Your task to perform on an android device: open app "Upside-Cash back on gas & food" (install if not already installed), go to login, and select forgot password Image 0: 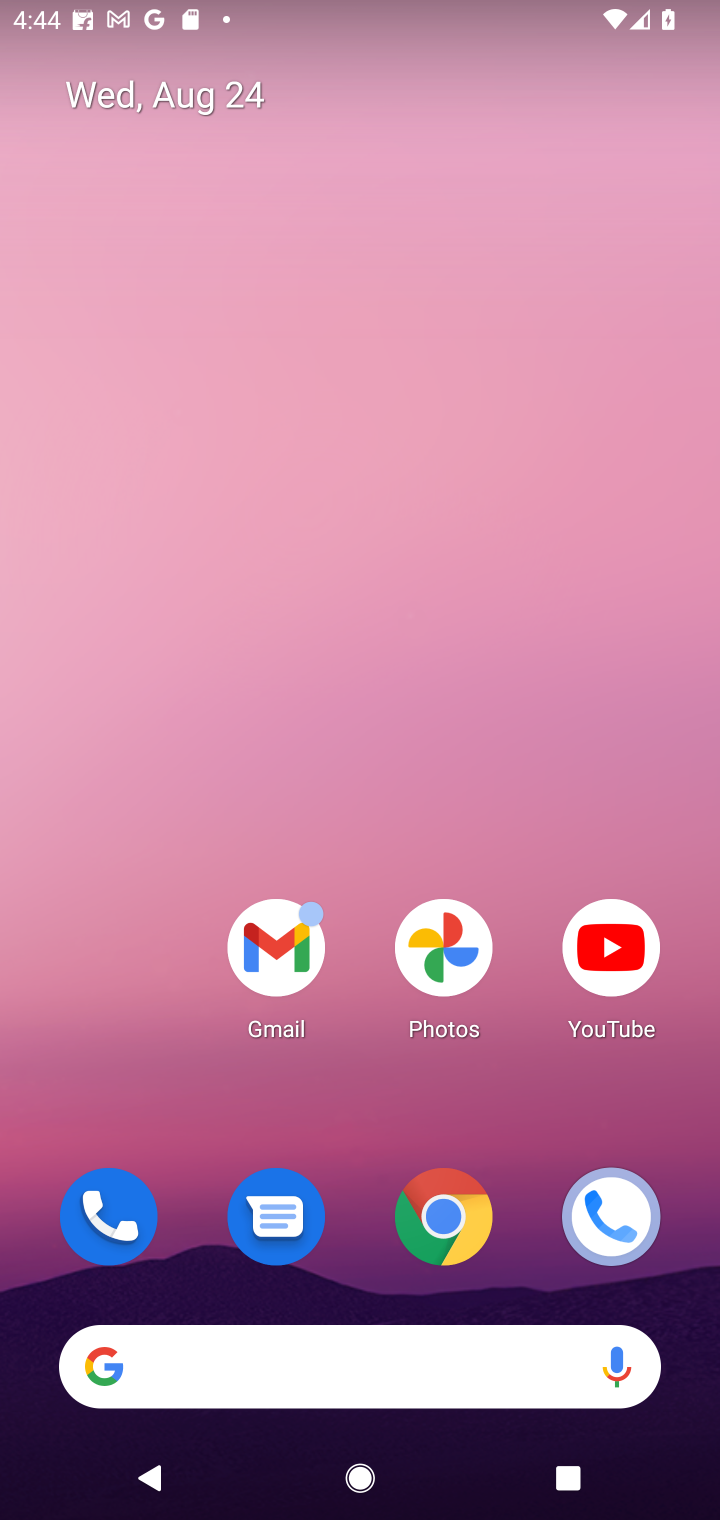
Step 0: drag from (352, 978) to (381, 241)
Your task to perform on an android device: open app "Upside-Cash back on gas & food" (install if not already installed), go to login, and select forgot password Image 1: 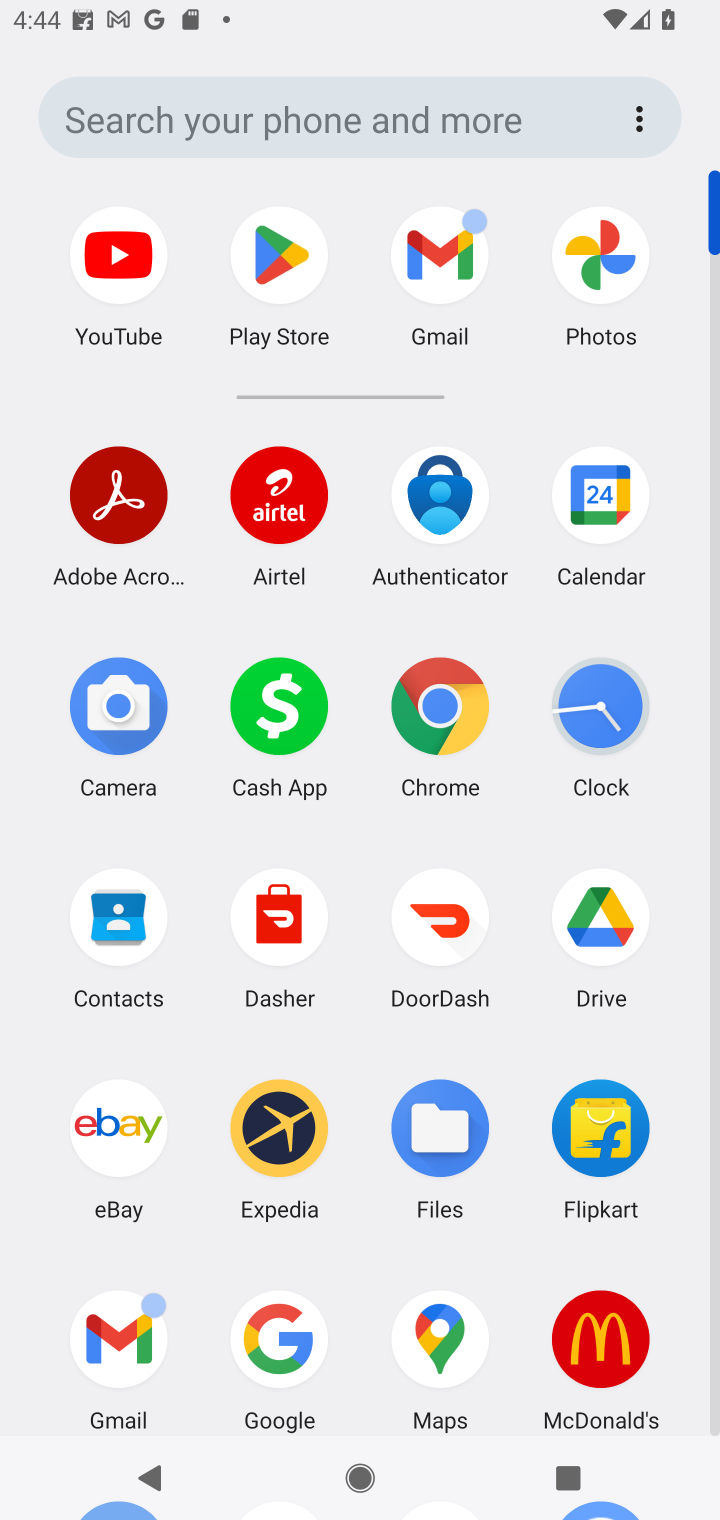
Step 1: click (253, 268)
Your task to perform on an android device: open app "Upside-Cash back on gas & food" (install if not already installed), go to login, and select forgot password Image 2: 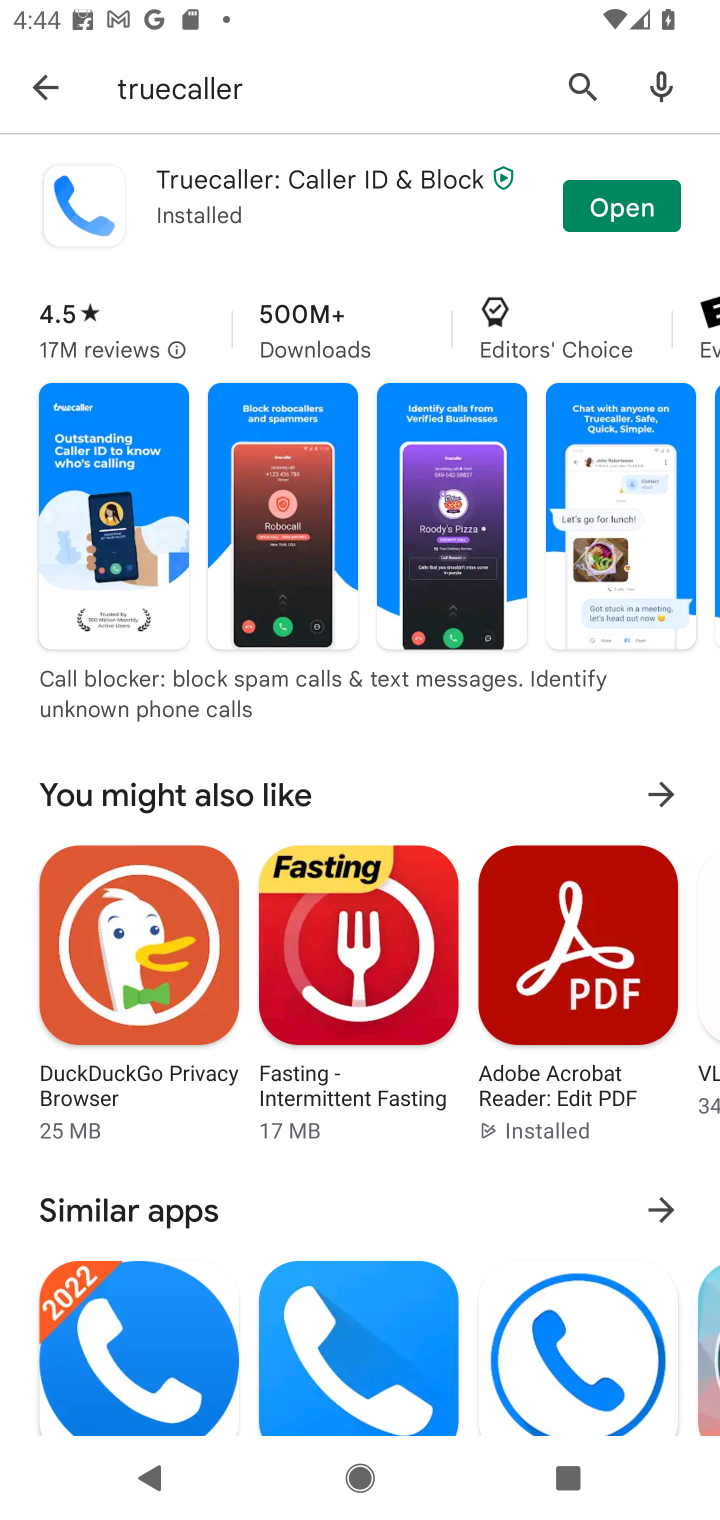
Step 2: click (586, 90)
Your task to perform on an android device: open app "Upside-Cash back on gas & food" (install if not already installed), go to login, and select forgot password Image 3: 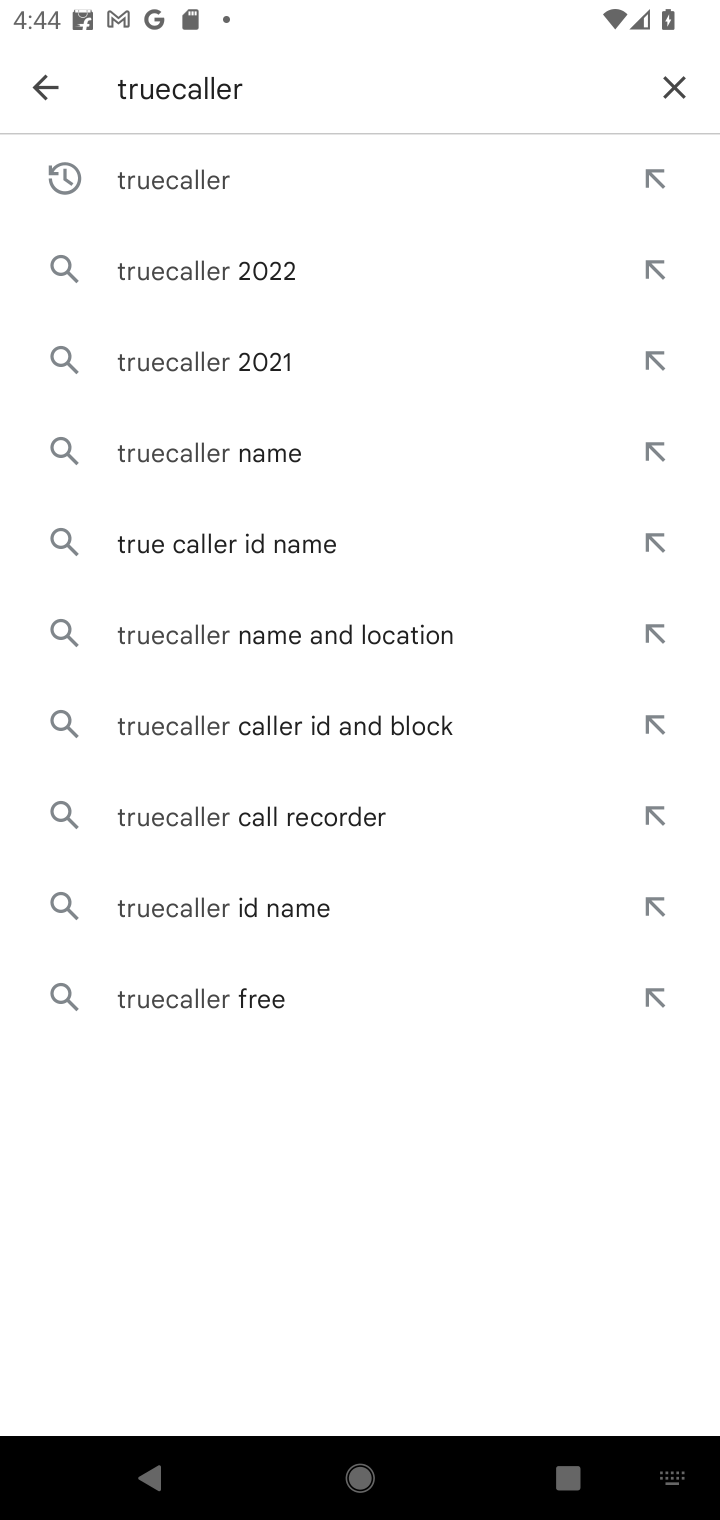
Step 3: click (669, 100)
Your task to perform on an android device: open app "Upside-Cash back on gas & food" (install if not already installed), go to login, and select forgot password Image 4: 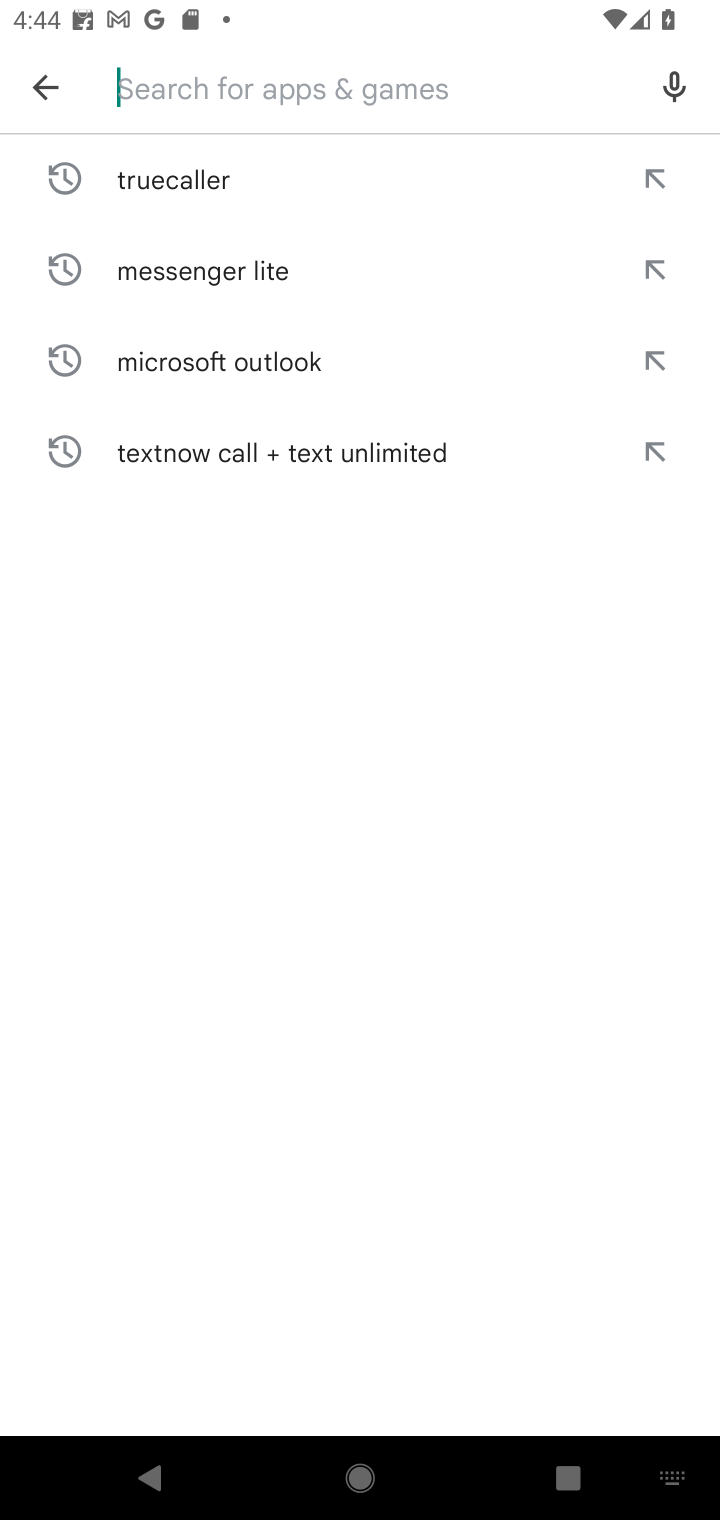
Step 4: type "Upside-Cash back on gas & food"
Your task to perform on an android device: open app "Upside-Cash back on gas & food" (install if not already installed), go to login, and select forgot password Image 5: 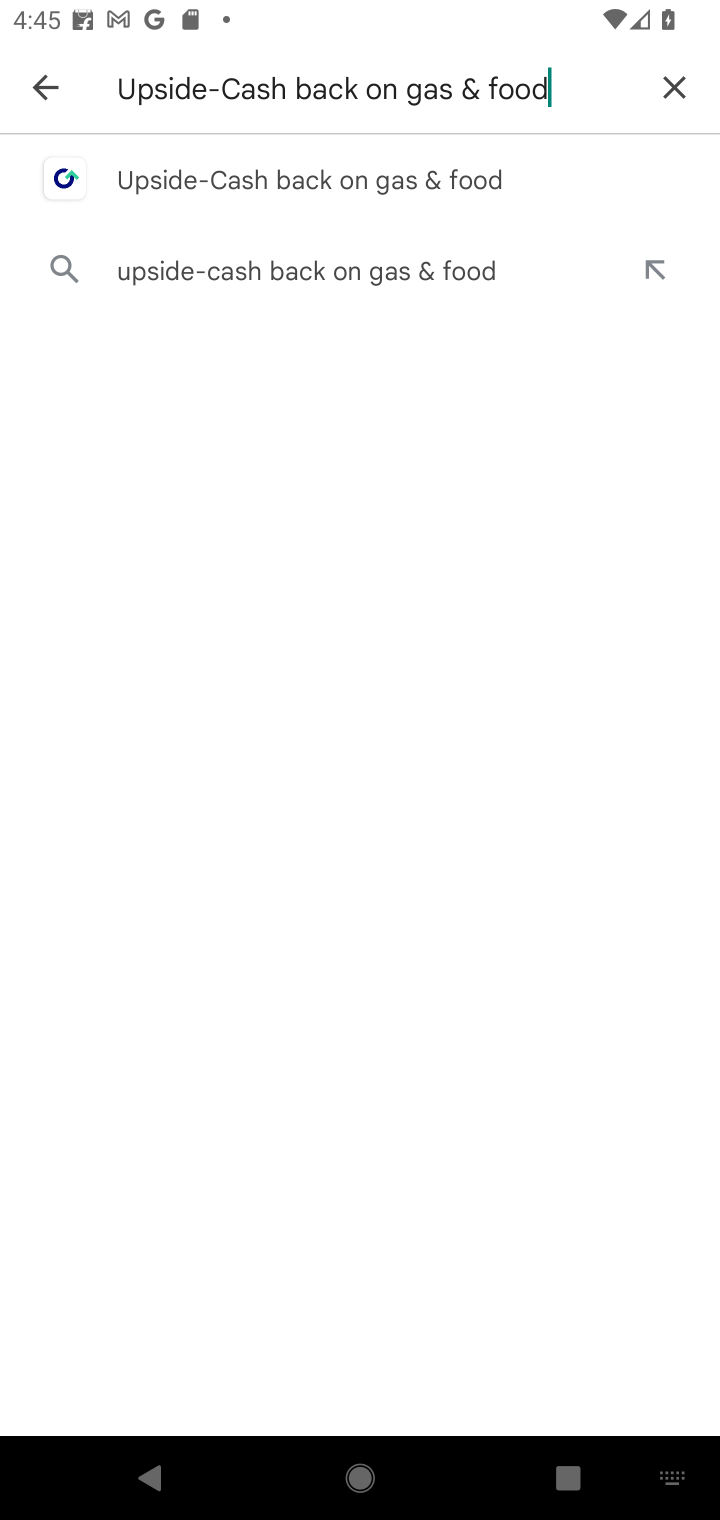
Step 5: click (213, 189)
Your task to perform on an android device: open app "Upside-Cash back on gas & food" (install if not already installed), go to login, and select forgot password Image 6: 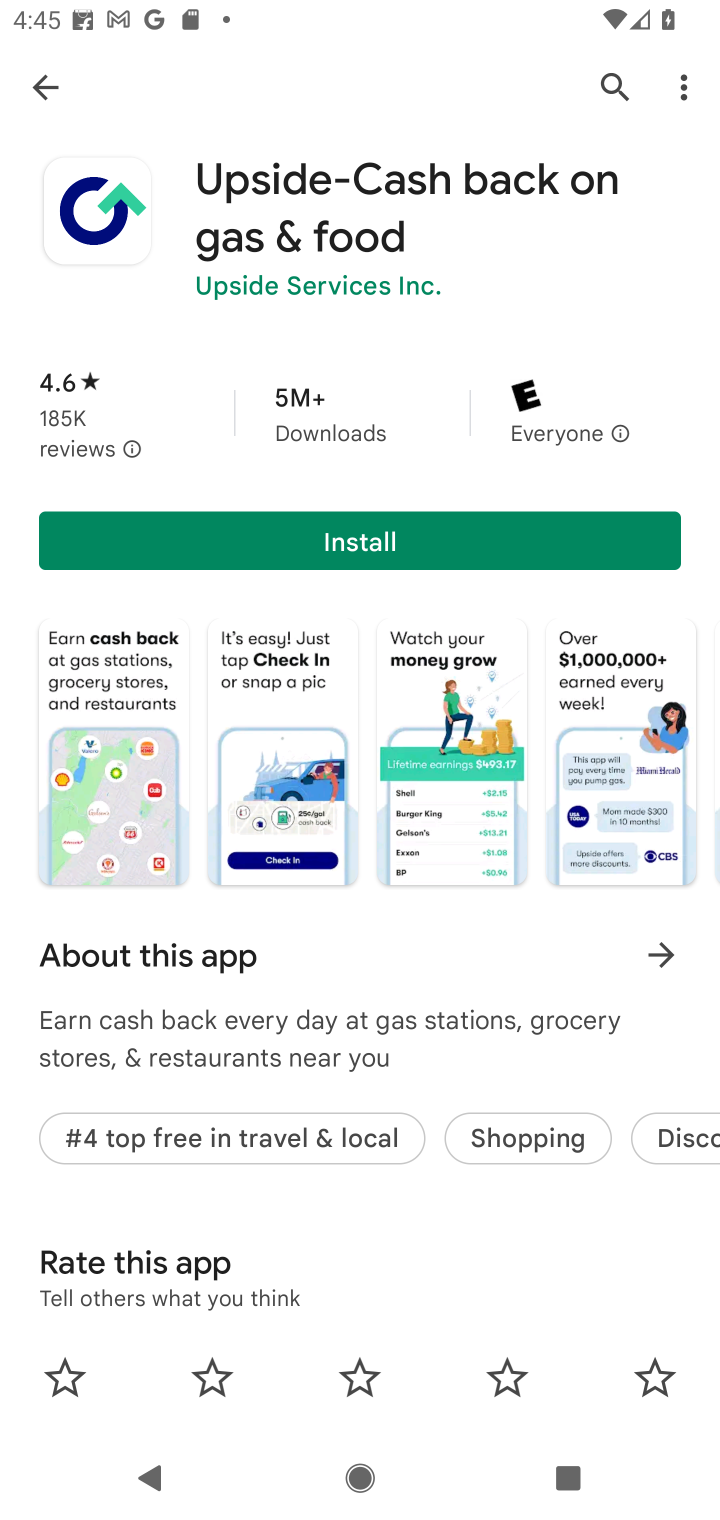
Step 6: click (310, 556)
Your task to perform on an android device: open app "Upside-Cash back on gas & food" (install if not already installed), go to login, and select forgot password Image 7: 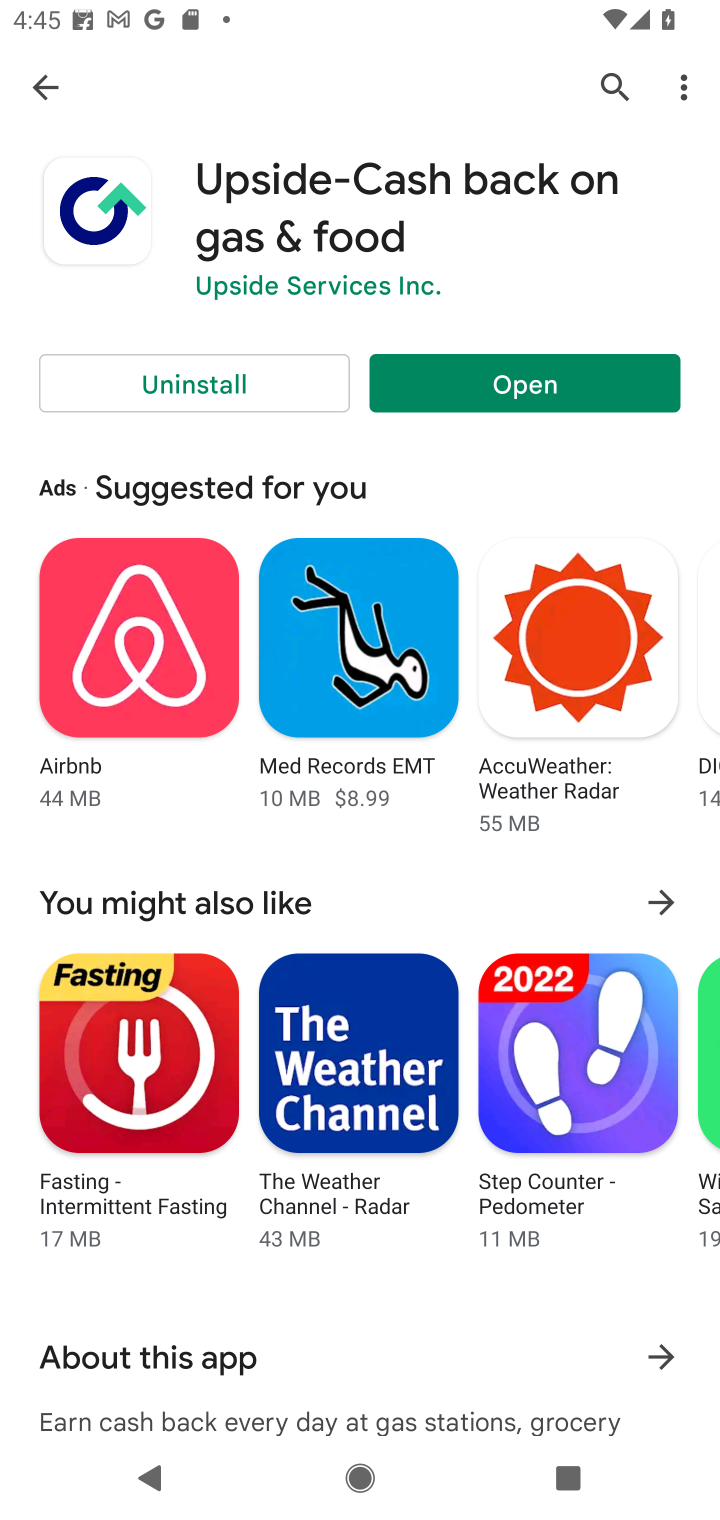
Step 7: click (503, 388)
Your task to perform on an android device: open app "Upside-Cash back on gas & food" (install if not already installed), go to login, and select forgot password Image 8: 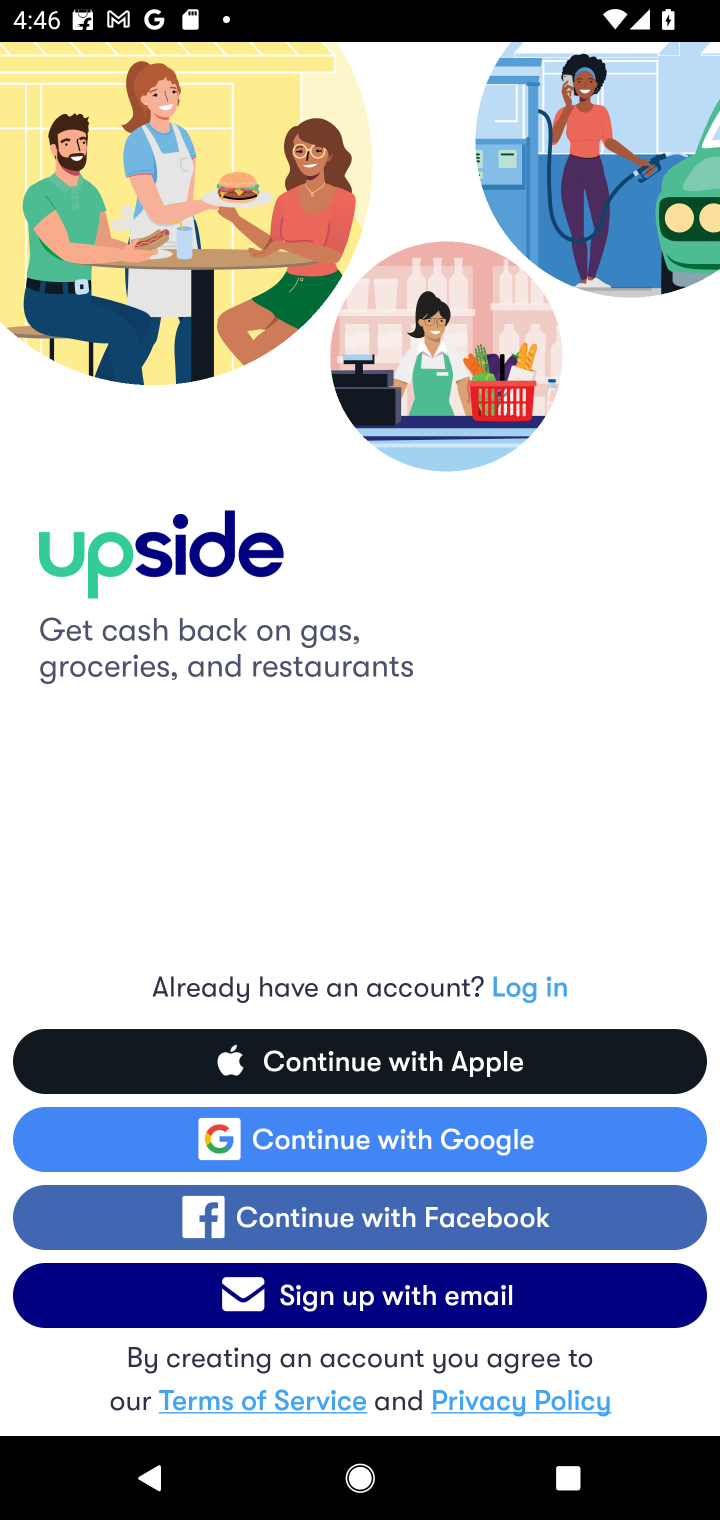
Step 8: task complete